Your task to perform on an android device: toggle airplane mode Image 0: 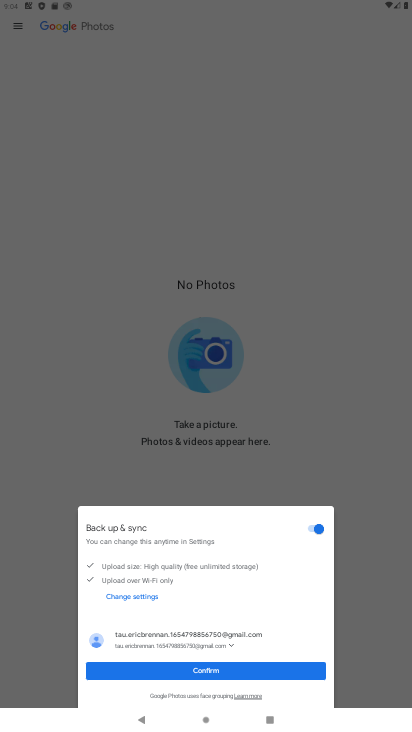
Step 0: press home button
Your task to perform on an android device: toggle airplane mode Image 1: 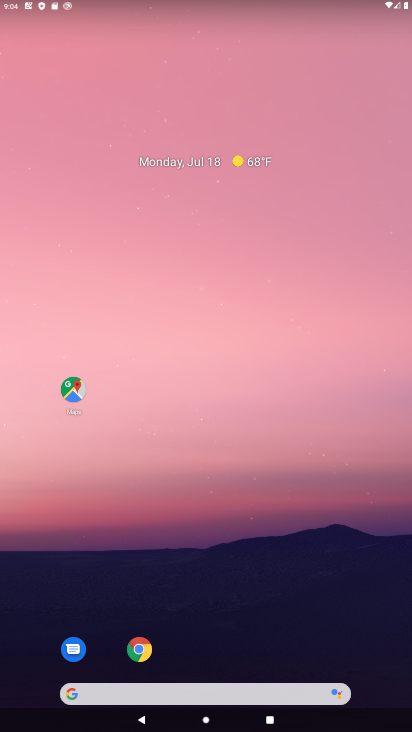
Step 1: drag from (162, 362) to (216, 118)
Your task to perform on an android device: toggle airplane mode Image 2: 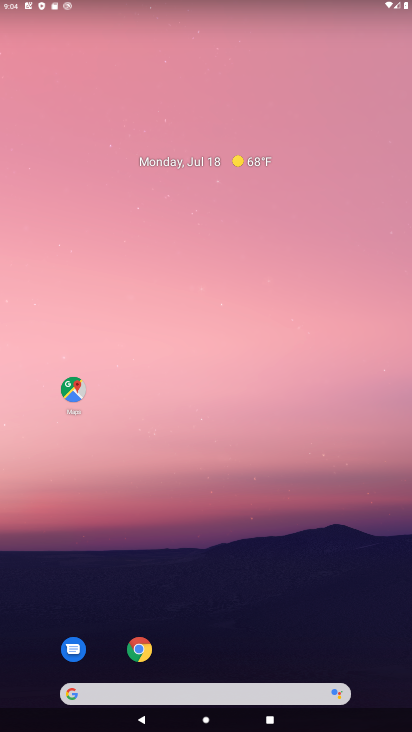
Step 2: drag from (173, 724) to (206, 39)
Your task to perform on an android device: toggle airplane mode Image 3: 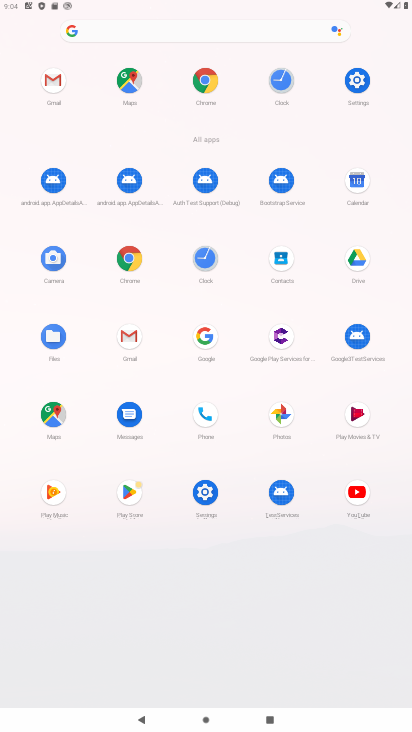
Step 3: click (353, 79)
Your task to perform on an android device: toggle airplane mode Image 4: 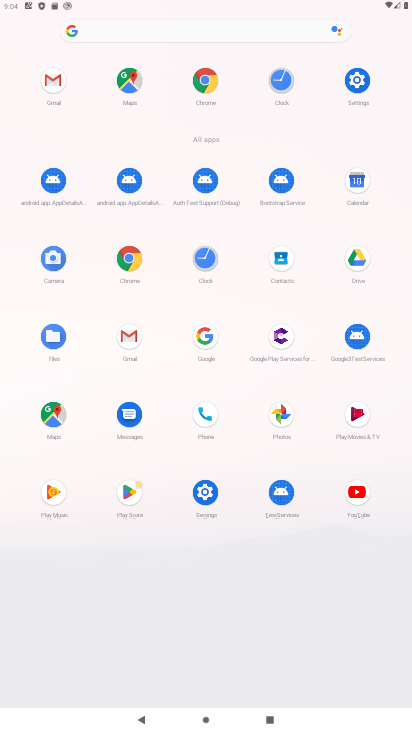
Step 4: click (353, 79)
Your task to perform on an android device: toggle airplane mode Image 5: 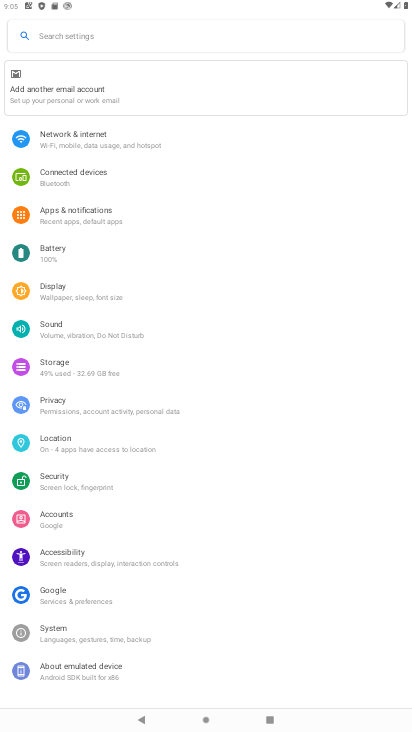
Step 5: click (135, 135)
Your task to perform on an android device: toggle airplane mode Image 6: 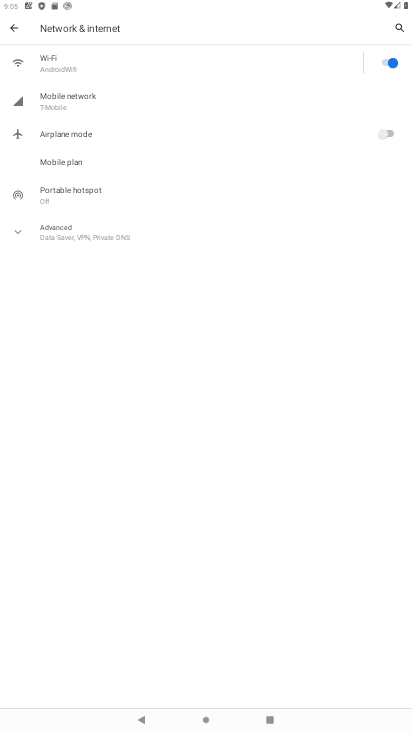
Step 6: click (384, 135)
Your task to perform on an android device: toggle airplane mode Image 7: 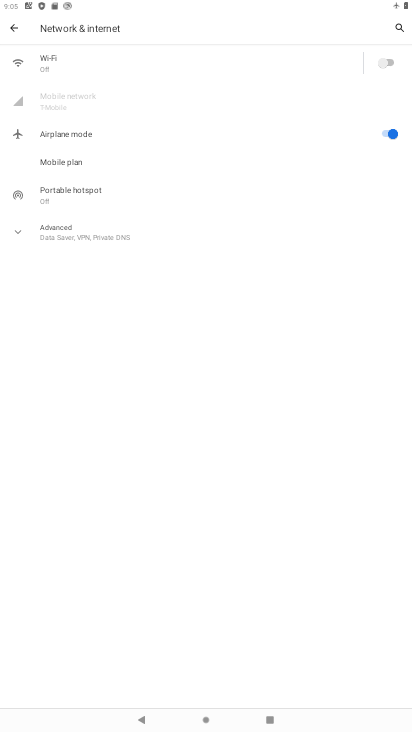
Step 7: task complete